Your task to perform on an android device: Go to Wikipedia Image 0: 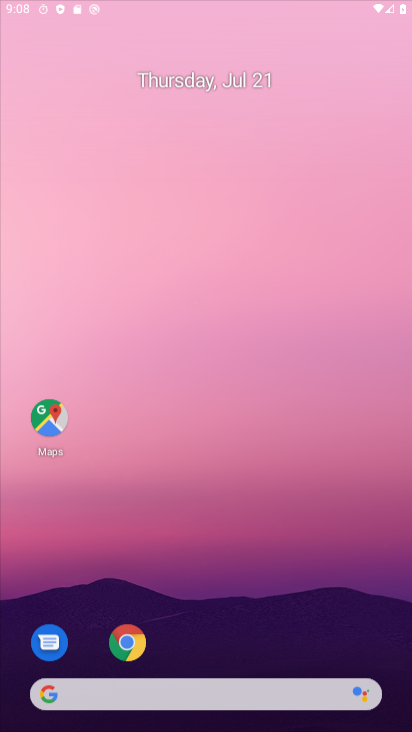
Step 0: click (238, 139)
Your task to perform on an android device: Go to Wikipedia Image 1: 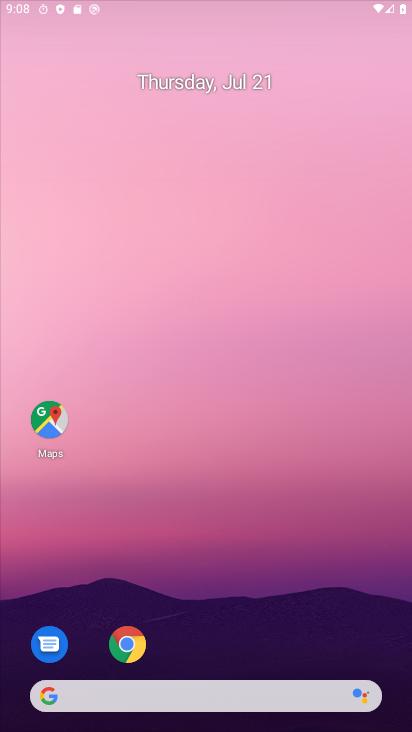
Step 1: drag from (241, 592) to (201, 142)
Your task to perform on an android device: Go to Wikipedia Image 2: 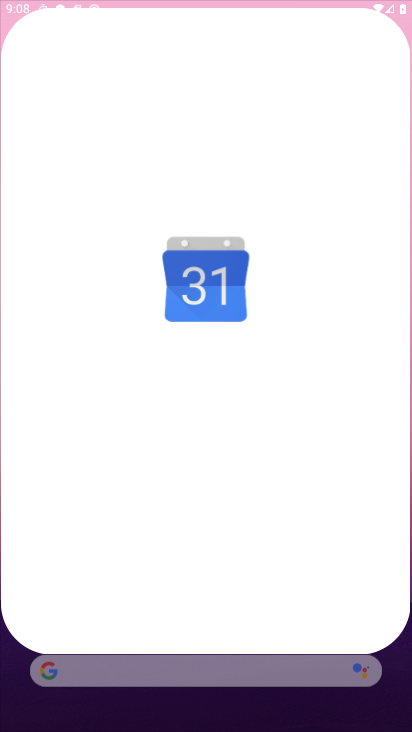
Step 2: drag from (240, 534) to (231, 58)
Your task to perform on an android device: Go to Wikipedia Image 3: 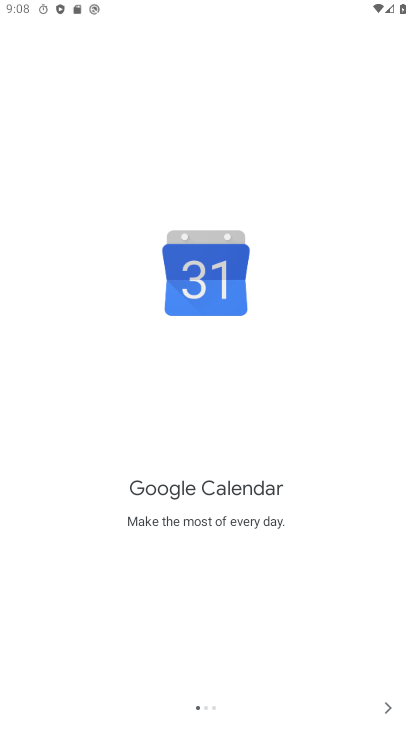
Step 3: press back button
Your task to perform on an android device: Go to Wikipedia Image 4: 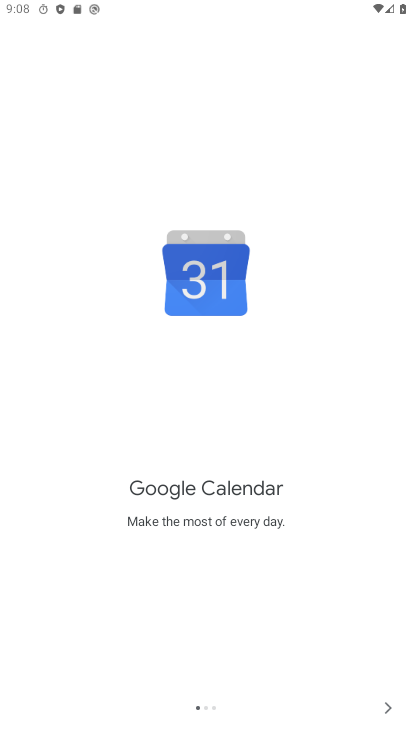
Step 4: press back button
Your task to perform on an android device: Go to Wikipedia Image 5: 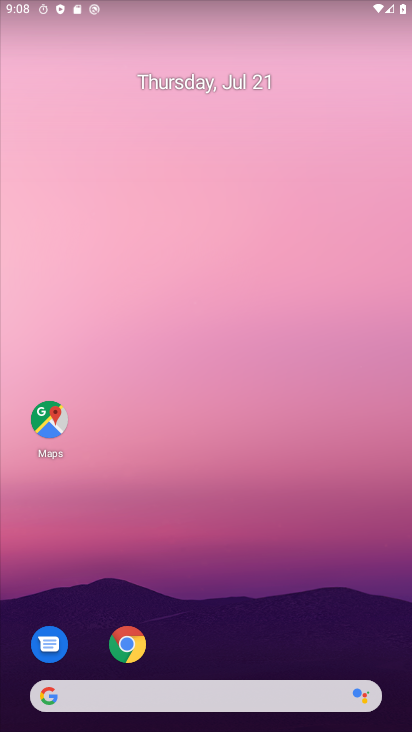
Step 5: drag from (171, 664) to (132, 219)
Your task to perform on an android device: Go to Wikipedia Image 6: 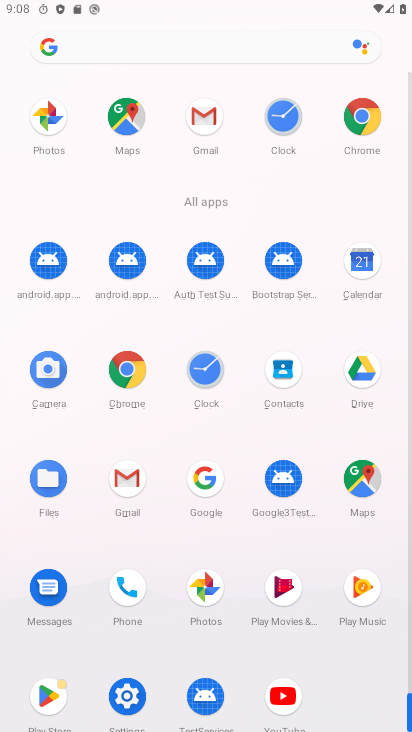
Step 6: click (358, 119)
Your task to perform on an android device: Go to Wikipedia Image 7: 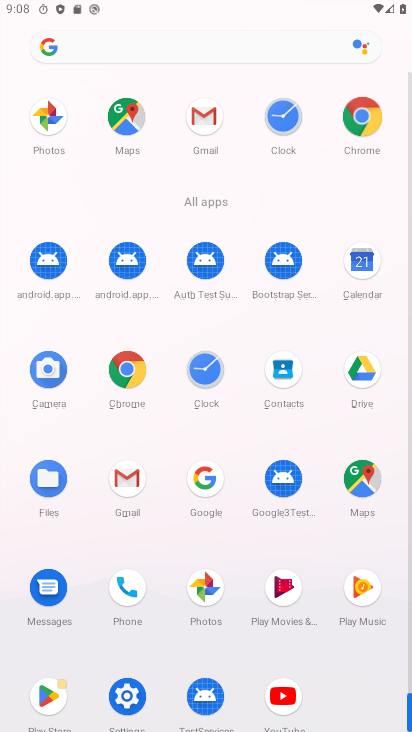
Step 7: click (360, 113)
Your task to perform on an android device: Go to Wikipedia Image 8: 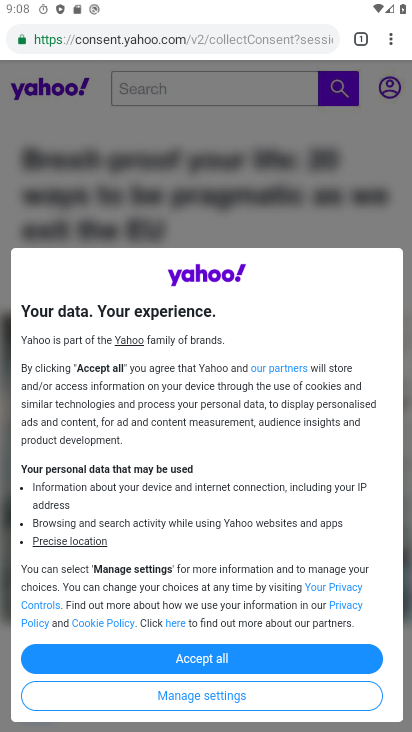
Step 8: drag from (382, 30) to (246, 85)
Your task to perform on an android device: Go to Wikipedia Image 9: 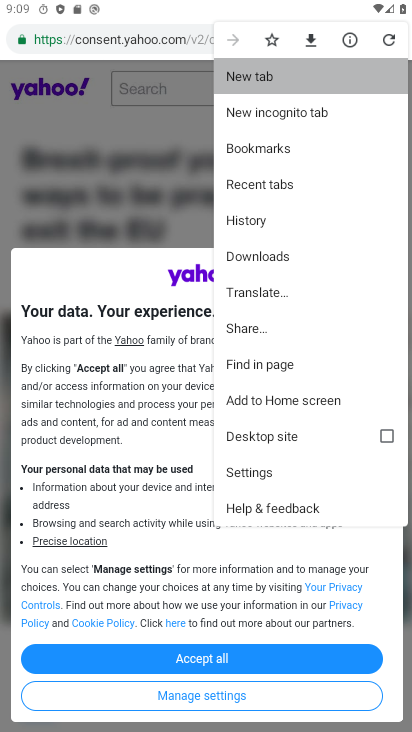
Step 9: click (246, 85)
Your task to perform on an android device: Go to Wikipedia Image 10: 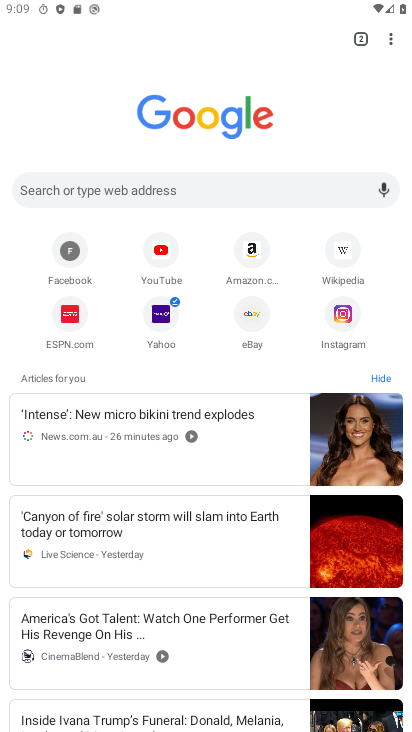
Step 10: click (339, 250)
Your task to perform on an android device: Go to Wikipedia Image 11: 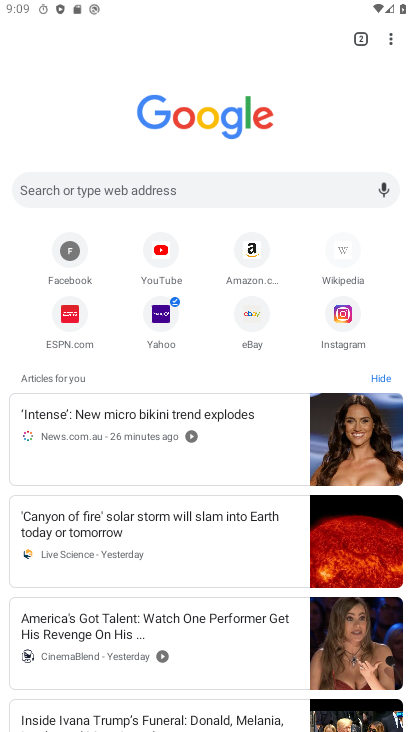
Step 11: click (350, 240)
Your task to perform on an android device: Go to Wikipedia Image 12: 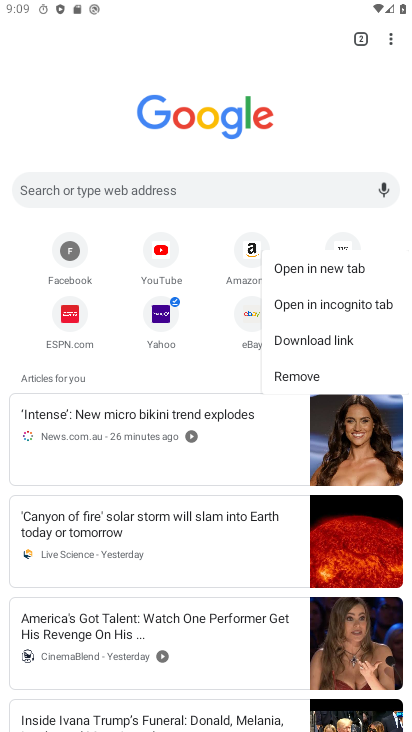
Step 12: click (359, 233)
Your task to perform on an android device: Go to Wikipedia Image 13: 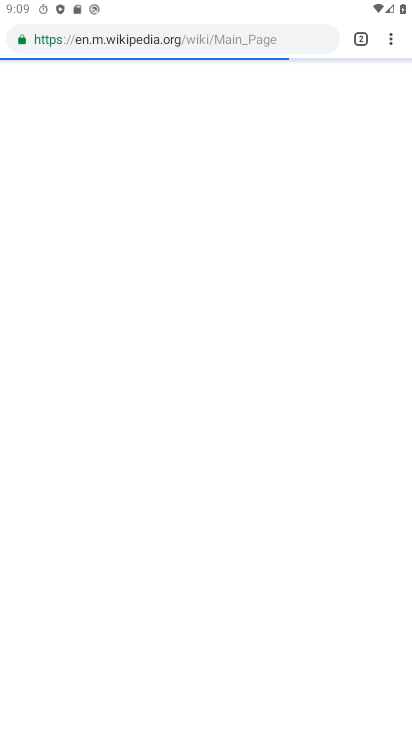
Step 13: click (333, 241)
Your task to perform on an android device: Go to Wikipedia Image 14: 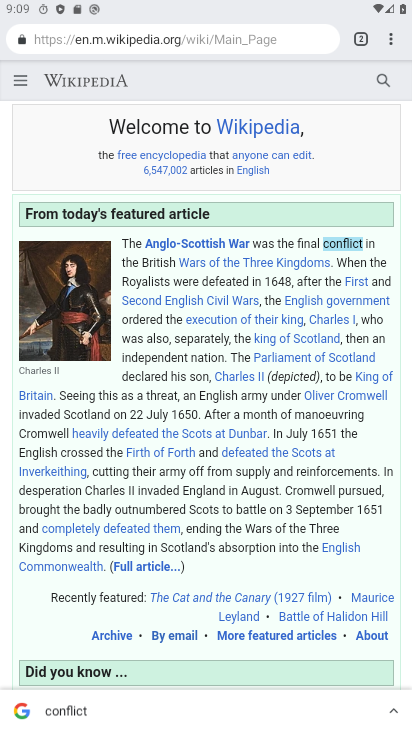
Step 14: task complete